Your task to perform on an android device: open chrome and create a bookmark for the current page Image 0: 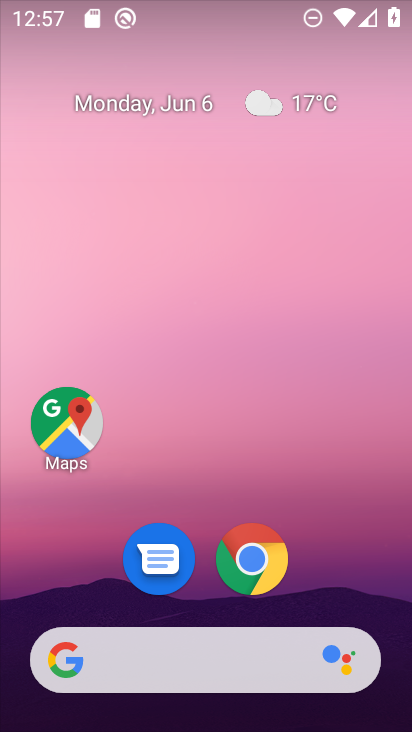
Step 0: drag from (198, 684) to (224, 216)
Your task to perform on an android device: open chrome and create a bookmark for the current page Image 1: 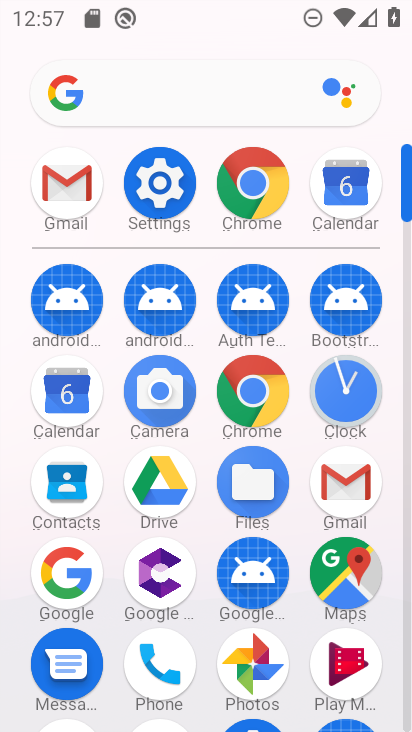
Step 1: click (262, 193)
Your task to perform on an android device: open chrome and create a bookmark for the current page Image 2: 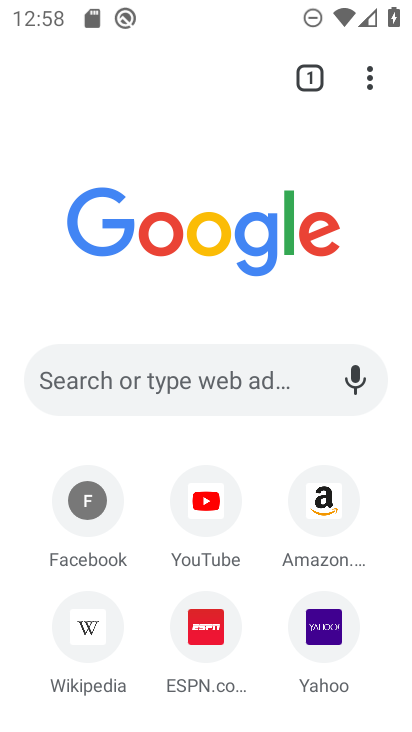
Step 2: click (368, 82)
Your task to perform on an android device: open chrome and create a bookmark for the current page Image 3: 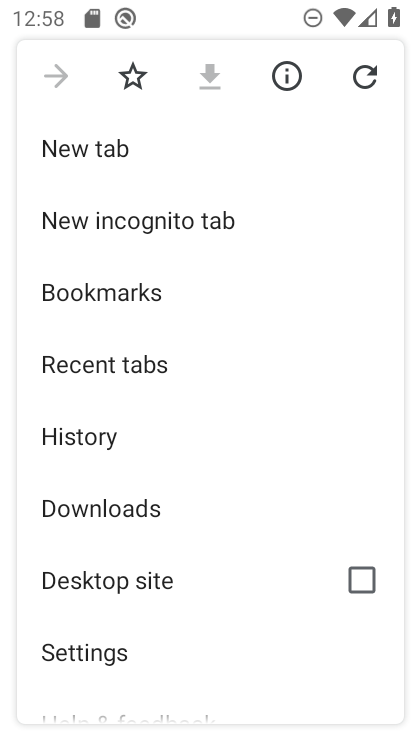
Step 3: click (147, 76)
Your task to perform on an android device: open chrome and create a bookmark for the current page Image 4: 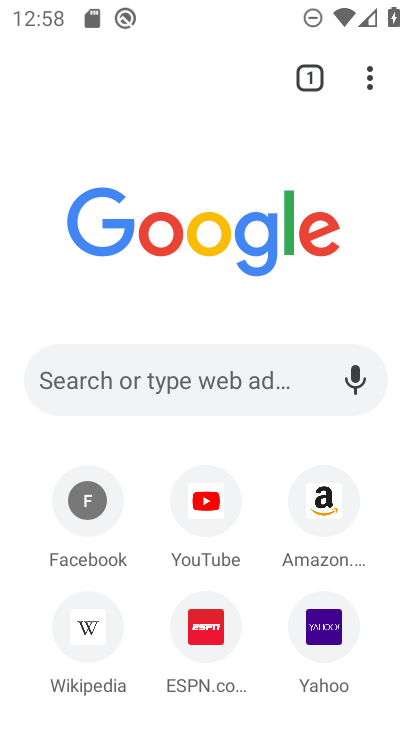
Step 4: task complete